Your task to perform on an android device: Go to location settings Image 0: 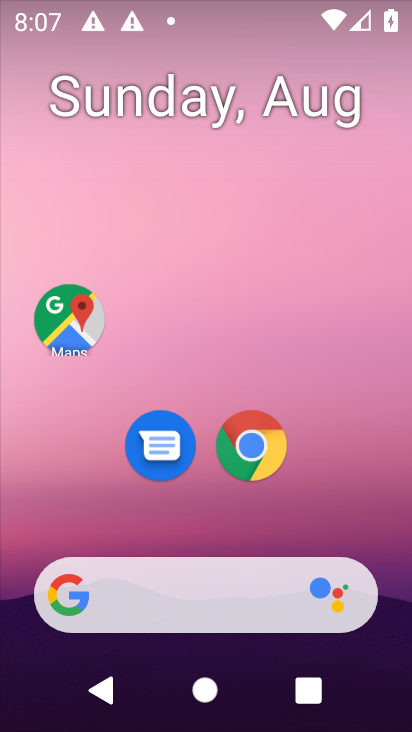
Step 0: press home button
Your task to perform on an android device: Go to location settings Image 1: 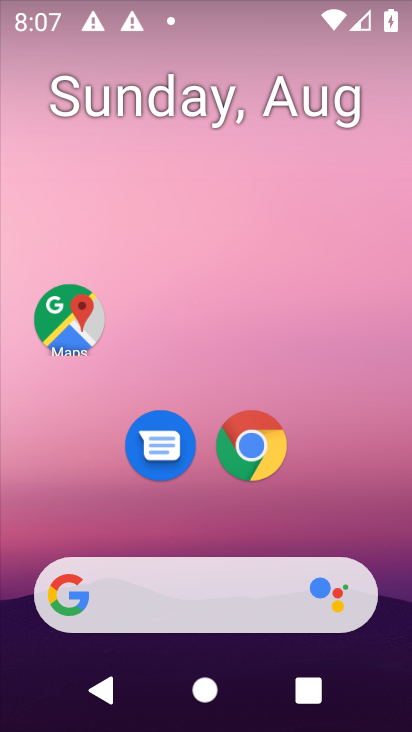
Step 1: drag from (211, 535) to (214, 42)
Your task to perform on an android device: Go to location settings Image 2: 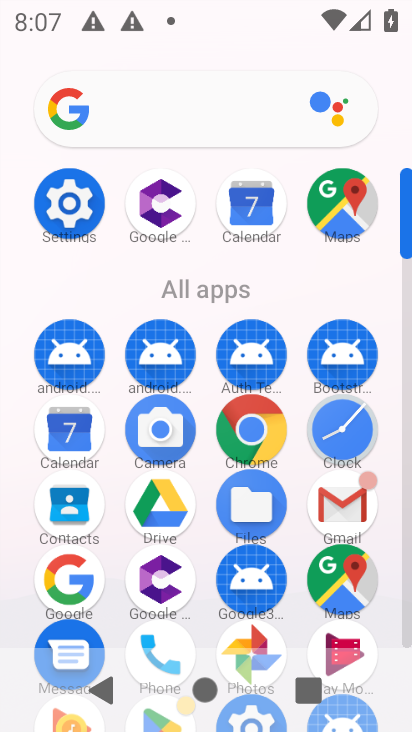
Step 2: click (63, 193)
Your task to perform on an android device: Go to location settings Image 3: 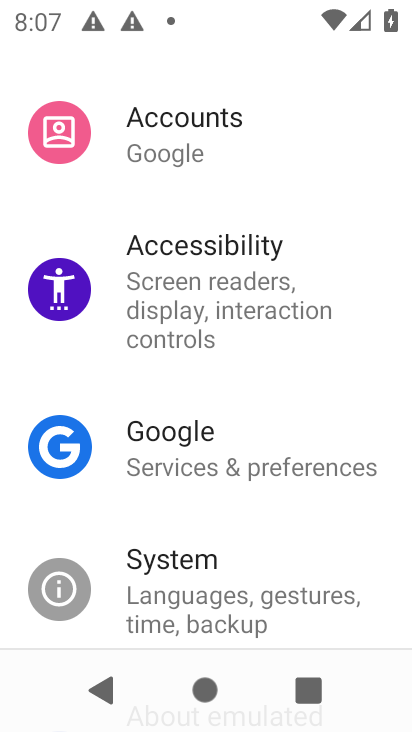
Step 3: drag from (202, 153) to (229, 526)
Your task to perform on an android device: Go to location settings Image 4: 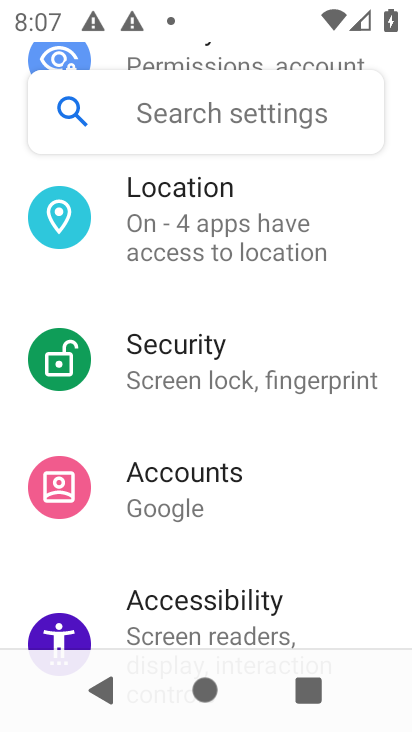
Step 4: click (176, 209)
Your task to perform on an android device: Go to location settings Image 5: 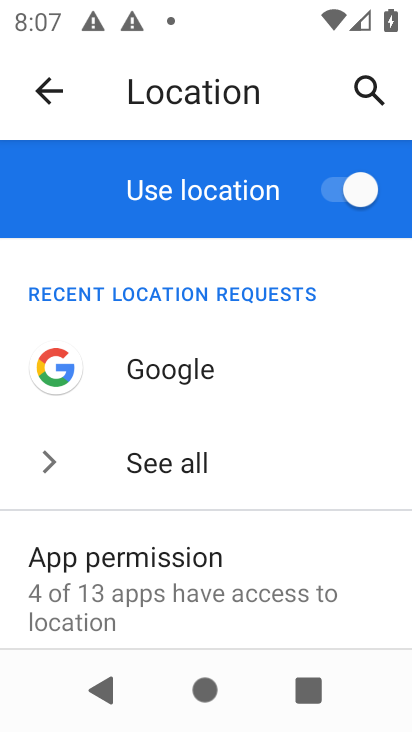
Step 5: drag from (208, 600) to (210, 249)
Your task to perform on an android device: Go to location settings Image 6: 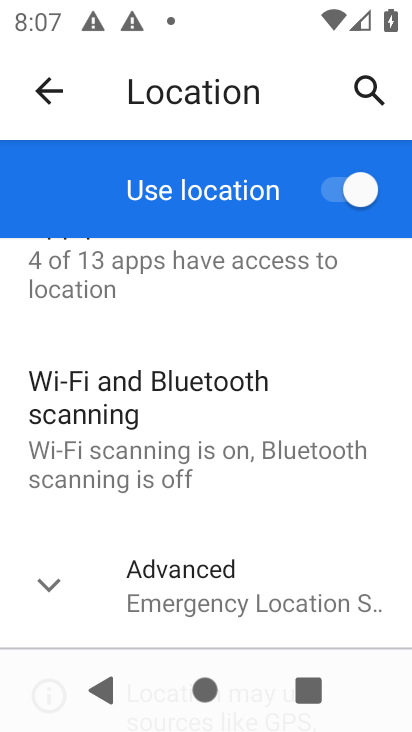
Step 6: click (56, 580)
Your task to perform on an android device: Go to location settings Image 7: 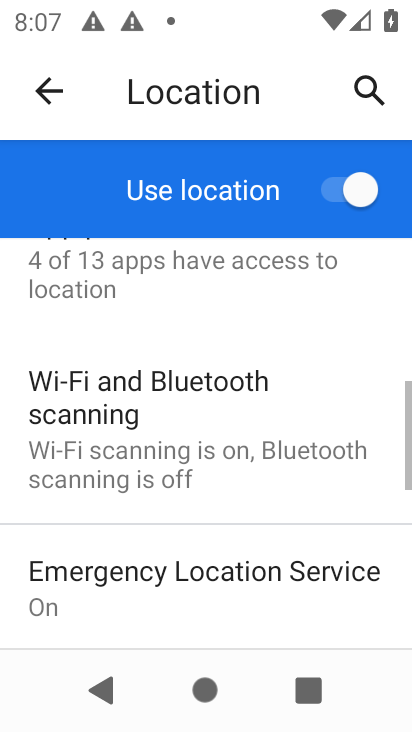
Step 7: task complete